Your task to perform on an android device: turn off notifications in google photos Image 0: 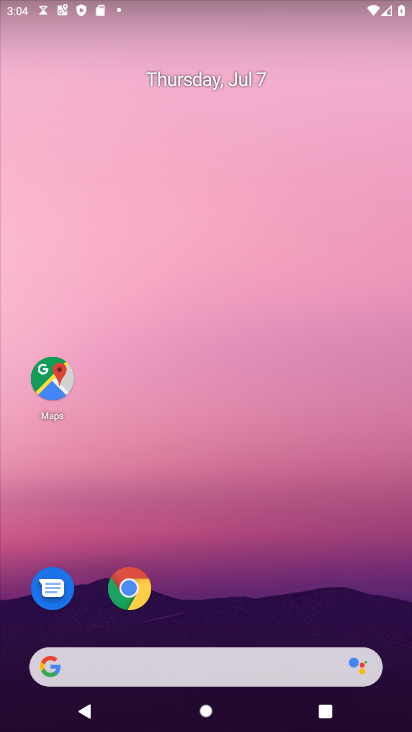
Step 0: drag from (258, 626) to (248, 99)
Your task to perform on an android device: turn off notifications in google photos Image 1: 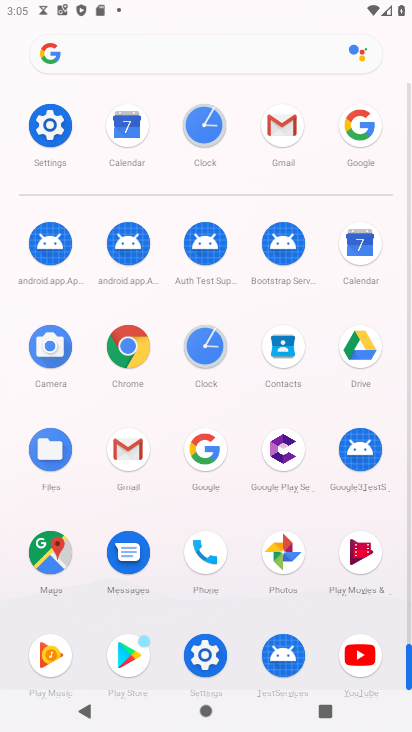
Step 1: click (284, 551)
Your task to perform on an android device: turn off notifications in google photos Image 2: 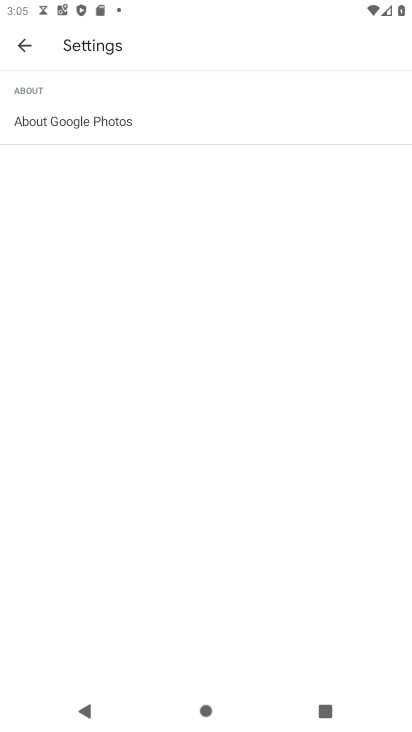
Step 2: press back button
Your task to perform on an android device: turn off notifications in google photos Image 3: 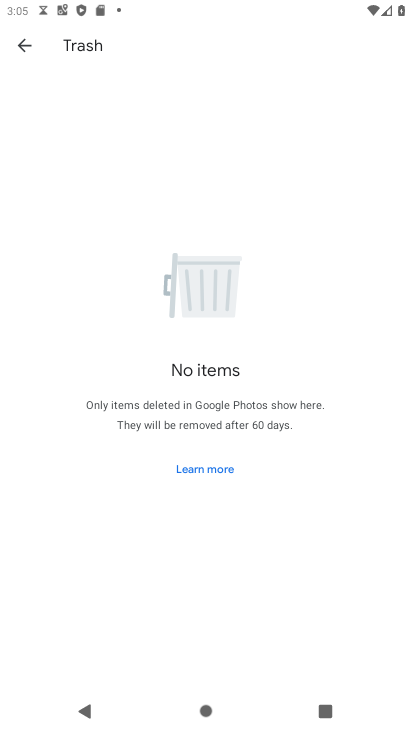
Step 3: press back button
Your task to perform on an android device: turn off notifications in google photos Image 4: 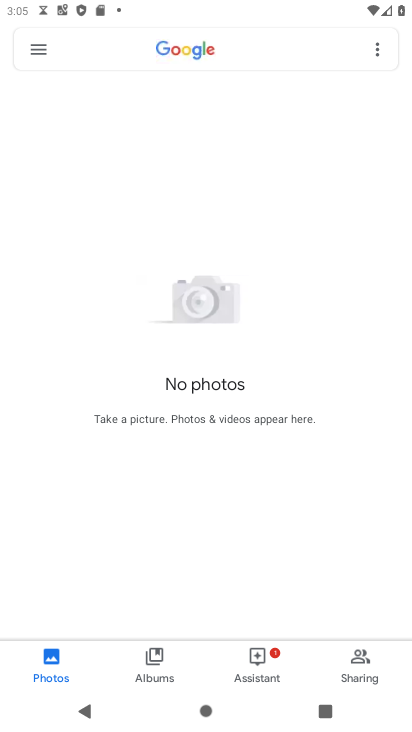
Step 4: click (36, 50)
Your task to perform on an android device: turn off notifications in google photos Image 5: 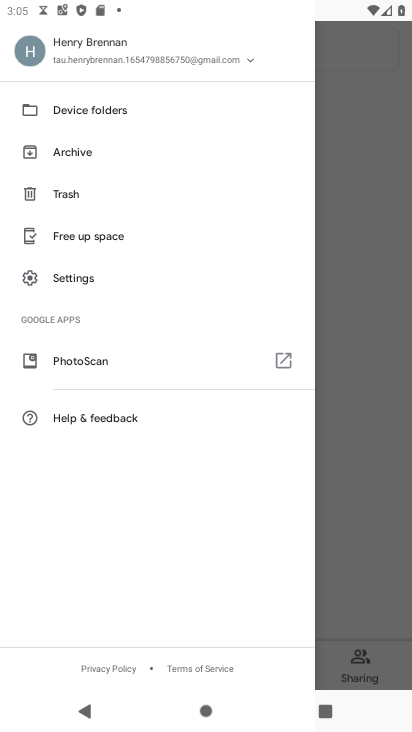
Step 5: click (73, 277)
Your task to perform on an android device: turn off notifications in google photos Image 6: 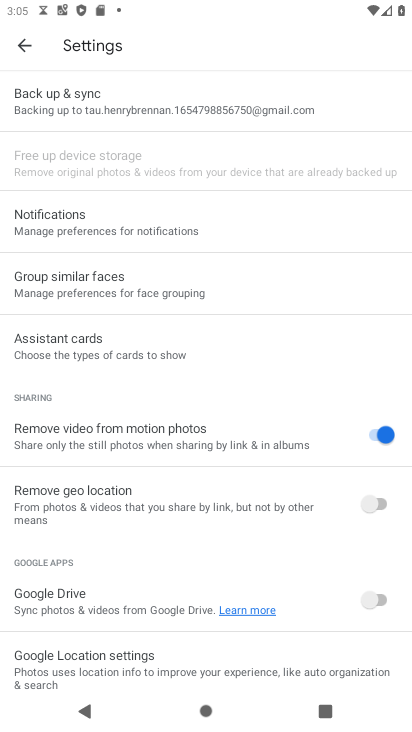
Step 6: click (165, 221)
Your task to perform on an android device: turn off notifications in google photos Image 7: 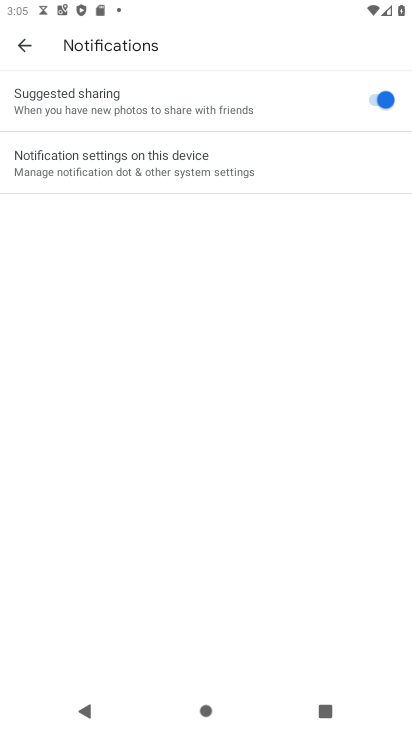
Step 7: click (177, 166)
Your task to perform on an android device: turn off notifications in google photos Image 8: 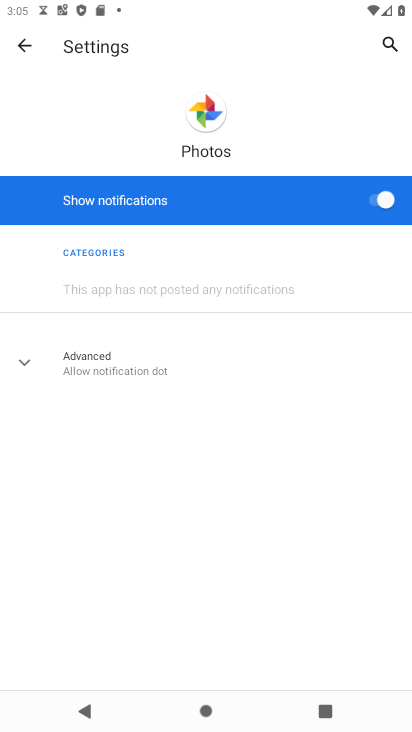
Step 8: click (370, 205)
Your task to perform on an android device: turn off notifications in google photos Image 9: 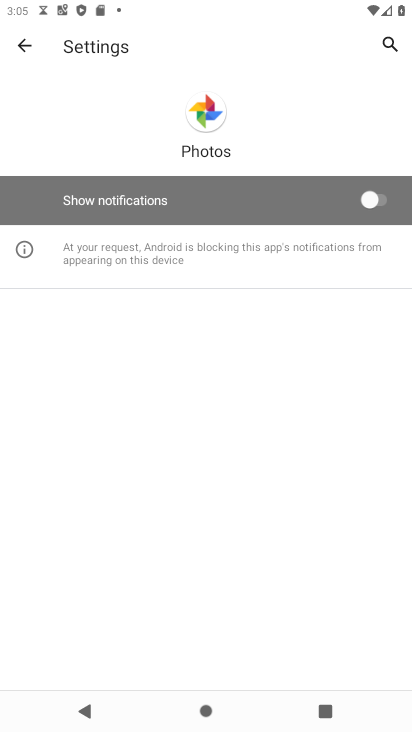
Step 9: task complete